Your task to perform on an android device: Go to internet settings Image 0: 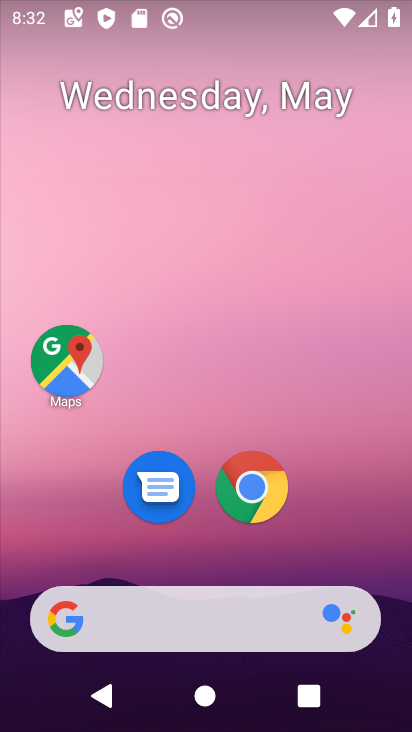
Step 0: drag from (316, 515) to (331, 218)
Your task to perform on an android device: Go to internet settings Image 1: 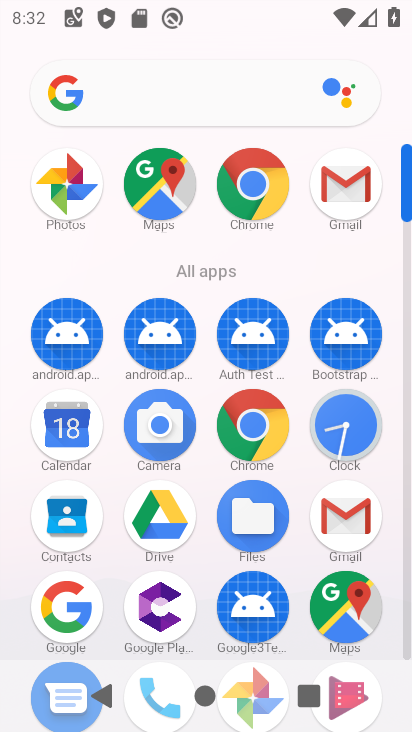
Step 1: drag from (212, 568) to (211, 345)
Your task to perform on an android device: Go to internet settings Image 2: 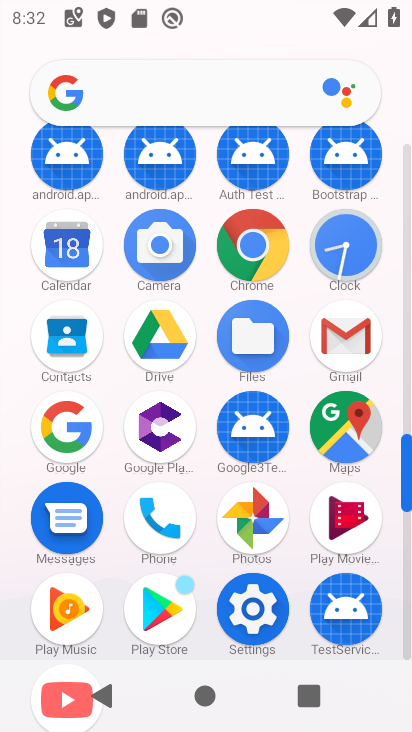
Step 2: click (251, 602)
Your task to perform on an android device: Go to internet settings Image 3: 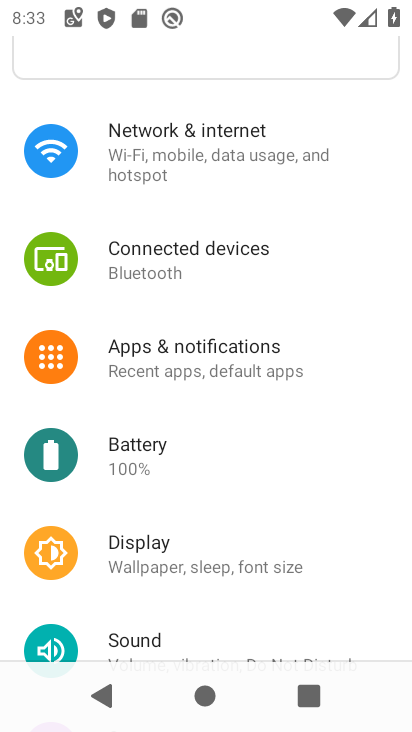
Step 3: click (160, 147)
Your task to perform on an android device: Go to internet settings Image 4: 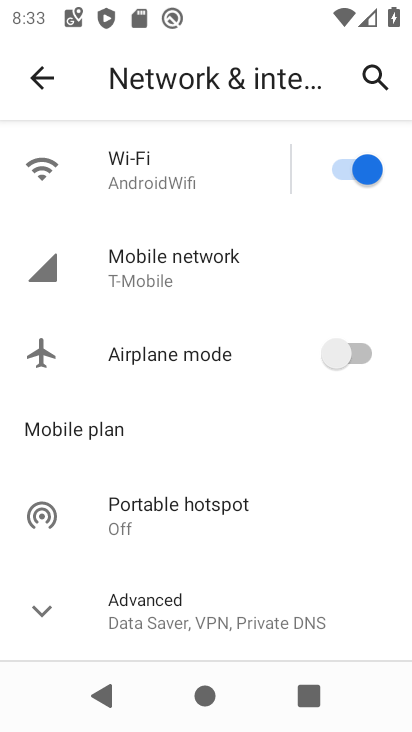
Step 4: task complete